Your task to perform on an android device: Show me productivity apps on the Play Store Image 0: 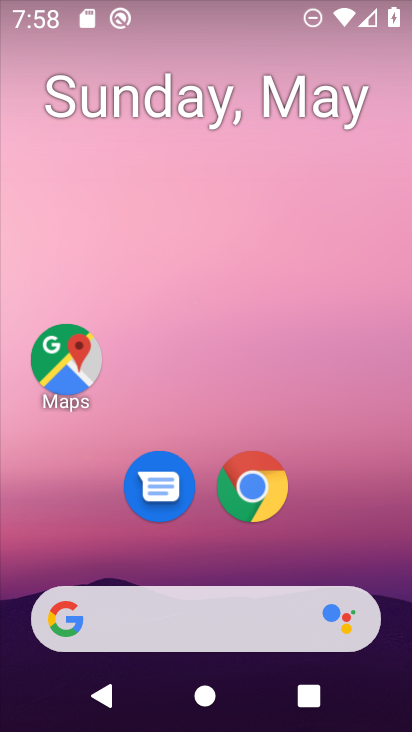
Step 0: drag from (169, 545) to (219, 200)
Your task to perform on an android device: Show me productivity apps on the Play Store Image 1: 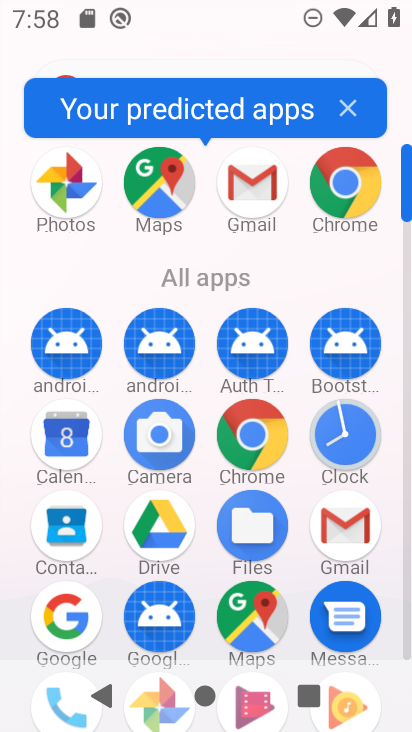
Step 1: drag from (291, 584) to (291, 399)
Your task to perform on an android device: Show me productivity apps on the Play Store Image 2: 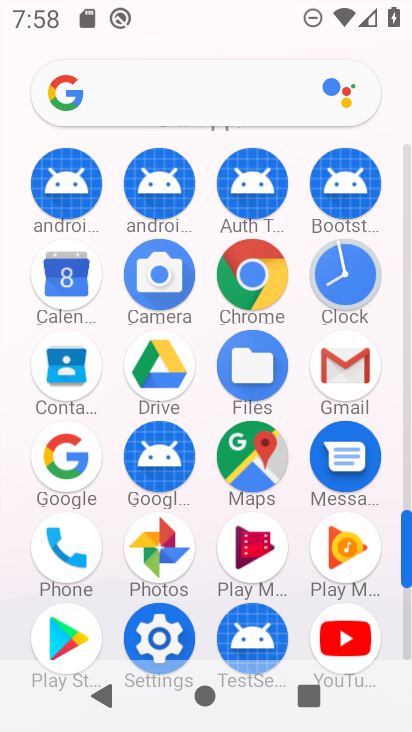
Step 2: click (64, 638)
Your task to perform on an android device: Show me productivity apps on the Play Store Image 3: 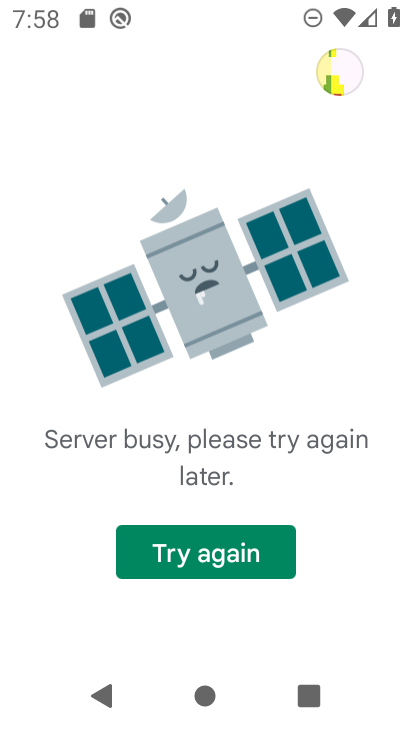
Step 3: task complete